Your task to perform on an android device: Open Google Chrome and open the bookmarks view Image 0: 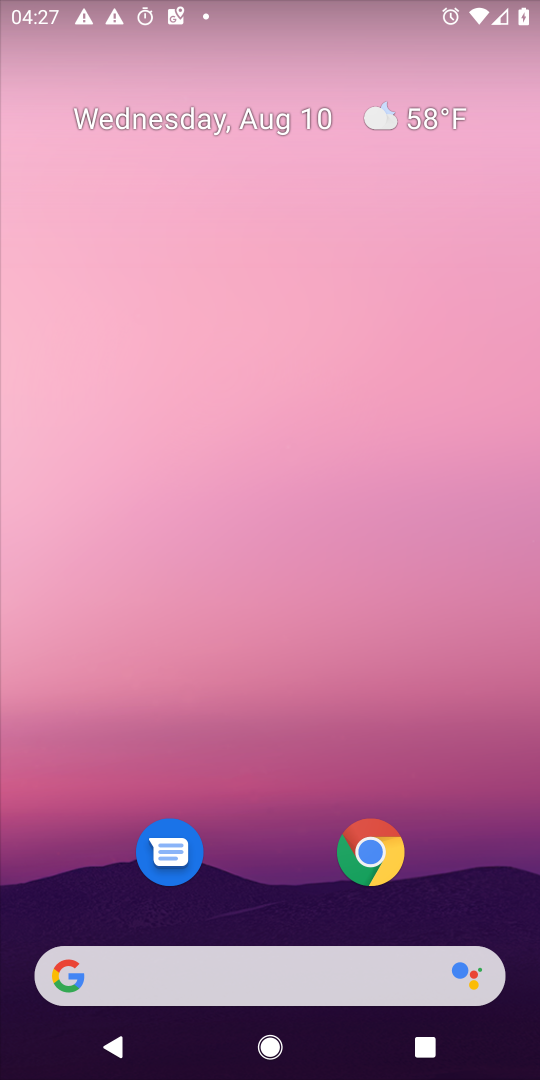
Step 0: drag from (266, 831) to (143, 173)
Your task to perform on an android device: Open Google Chrome and open the bookmarks view Image 1: 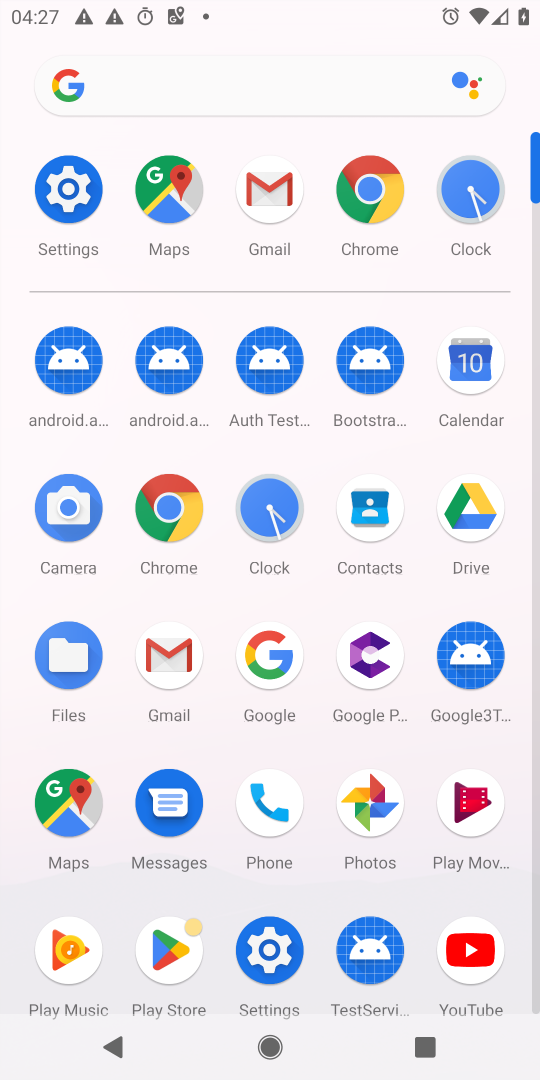
Step 1: click (174, 510)
Your task to perform on an android device: Open Google Chrome and open the bookmarks view Image 2: 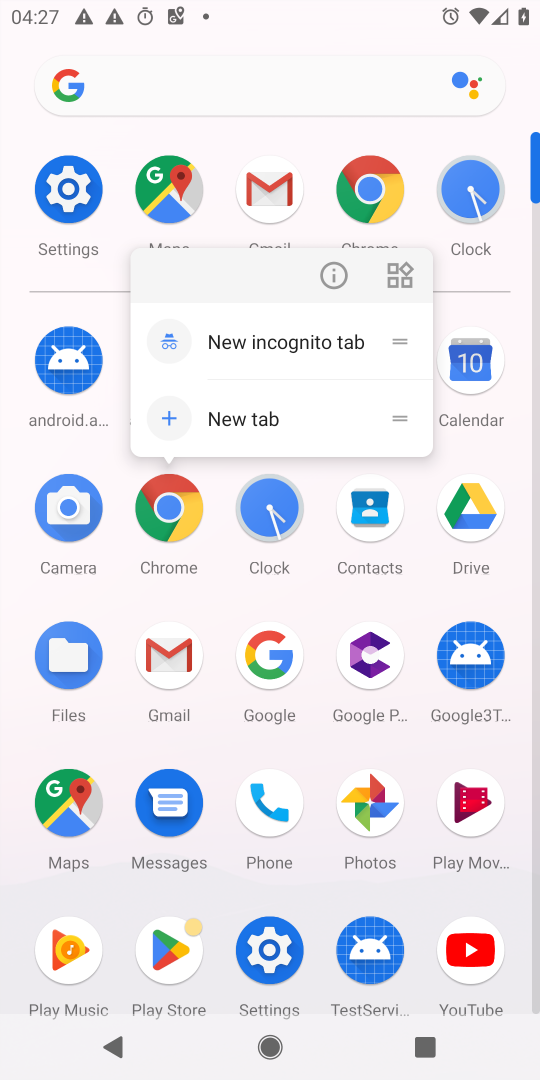
Step 2: click (174, 510)
Your task to perform on an android device: Open Google Chrome and open the bookmarks view Image 3: 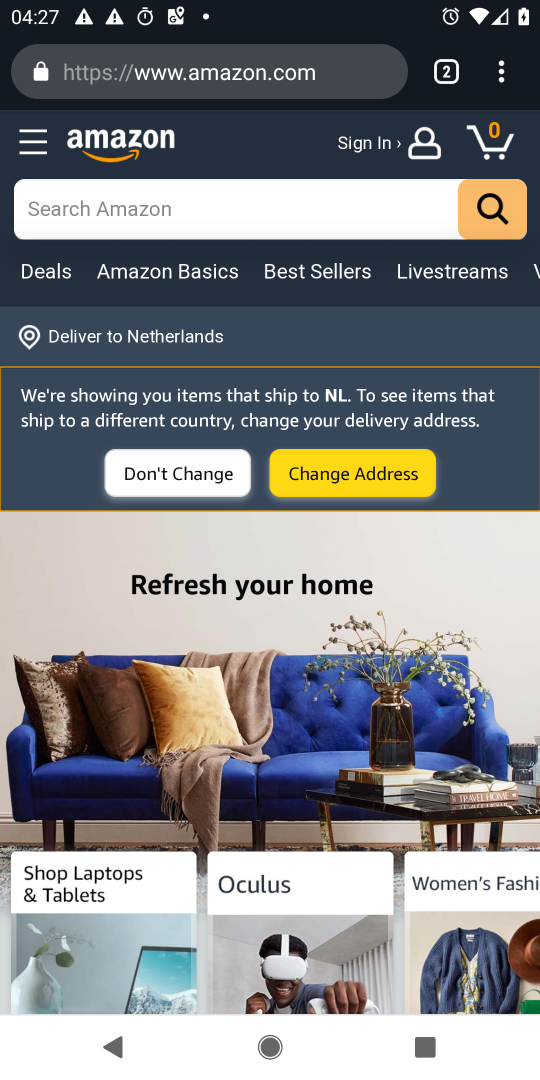
Step 3: task complete